Your task to perform on an android device: turn on location history Image 0: 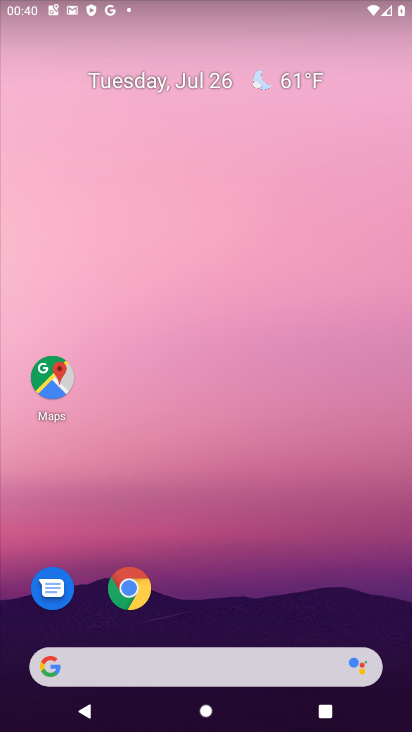
Step 0: press home button
Your task to perform on an android device: turn on location history Image 1: 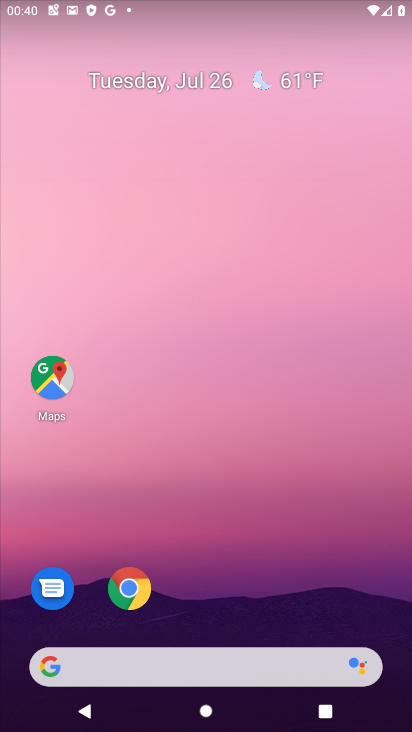
Step 1: drag from (217, 632) to (234, 2)
Your task to perform on an android device: turn on location history Image 2: 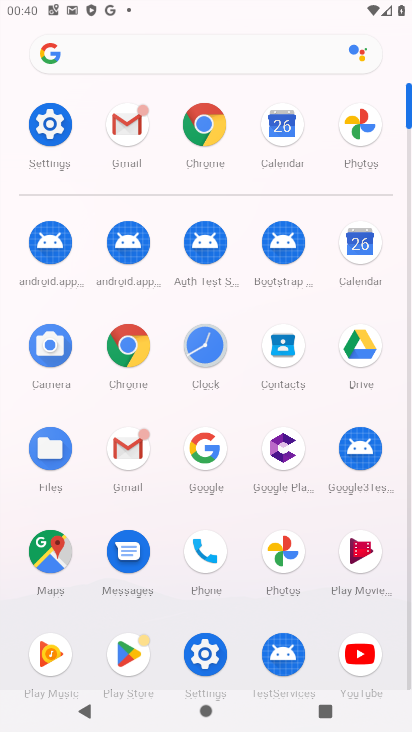
Step 2: click (51, 119)
Your task to perform on an android device: turn on location history Image 3: 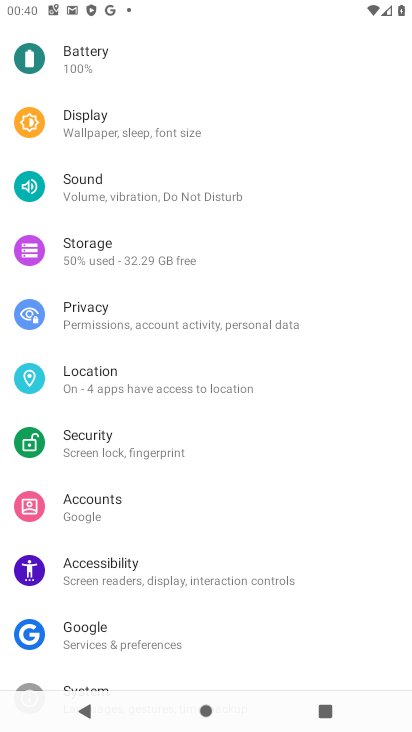
Step 3: click (129, 373)
Your task to perform on an android device: turn on location history Image 4: 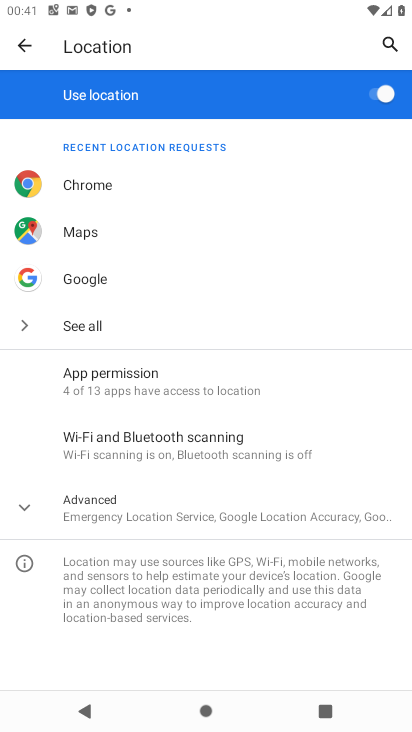
Step 4: click (25, 502)
Your task to perform on an android device: turn on location history Image 5: 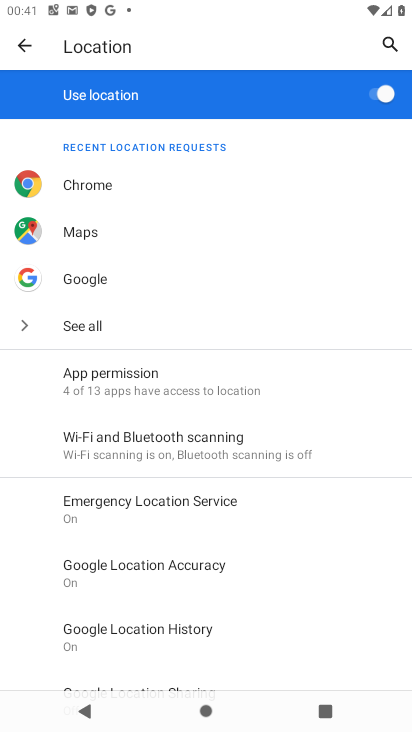
Step 5: click (226, 636)
Your task to perform on an android device: turn on location history Image 6: 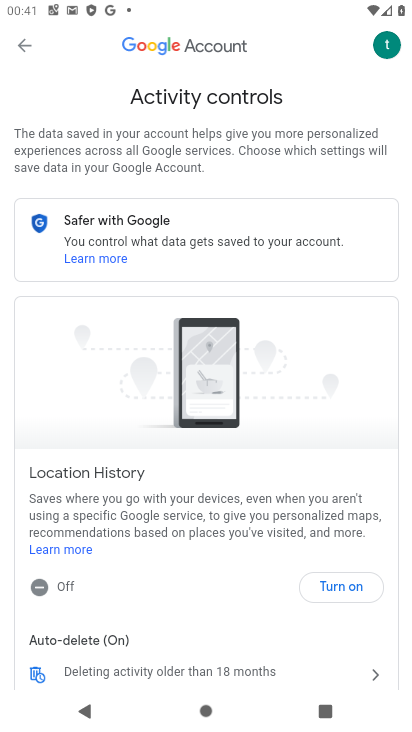
Step 6: drag from (241, 482) to (277, 139)
Your task to perform on an android device: turn on location history Image 7: 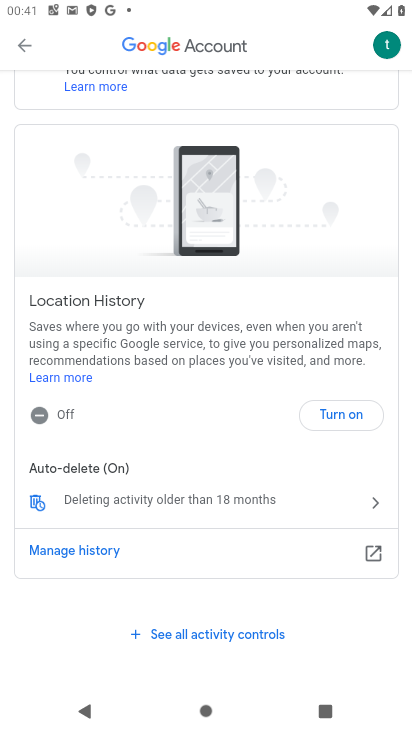
Step 7: click (340, 409)
Your task to perform on an android device: turn on location history Image 8: 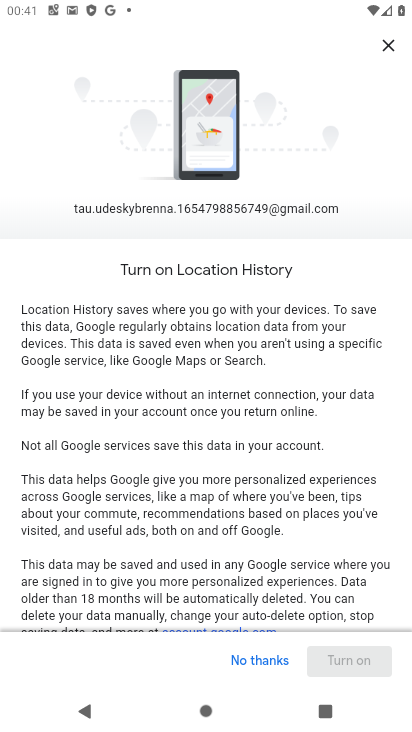
Step 8: drag from (315, 605) to (315, 194)
Your task to perform on an android device: turn on location history Image 9: 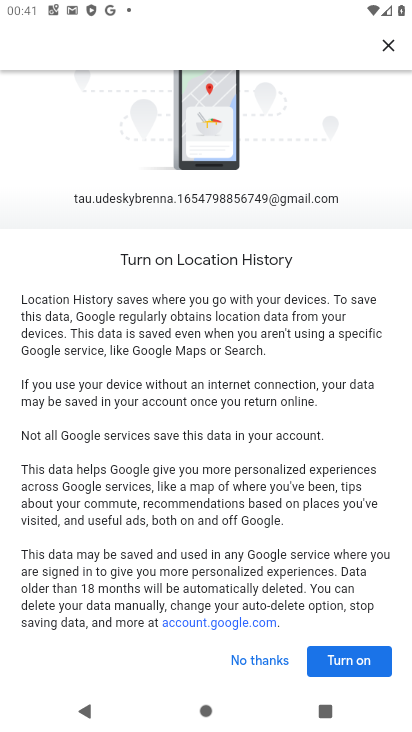
Step 9: click (361, 653)
Your task to perform on an android device: turn on location history Image 10: 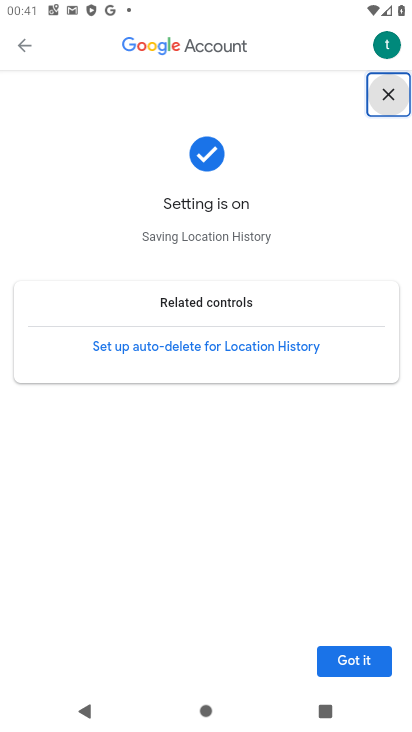
Step 10: click (350, 663)
Your task to perform on an android device: turn on location history Image 11: 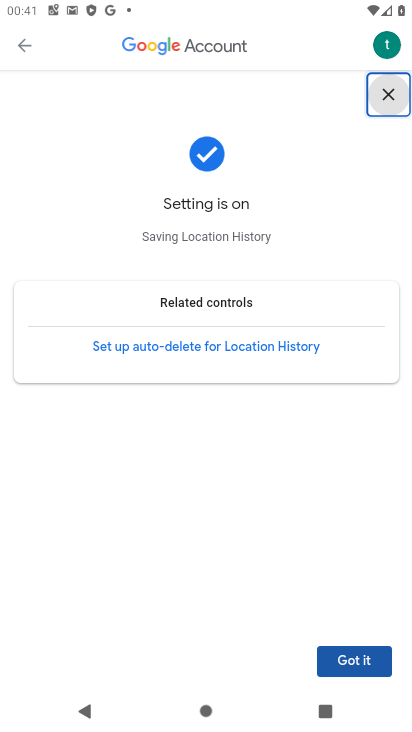
Step 11: task complete